Your task to perform on an android device: turn on wifi Image 0: 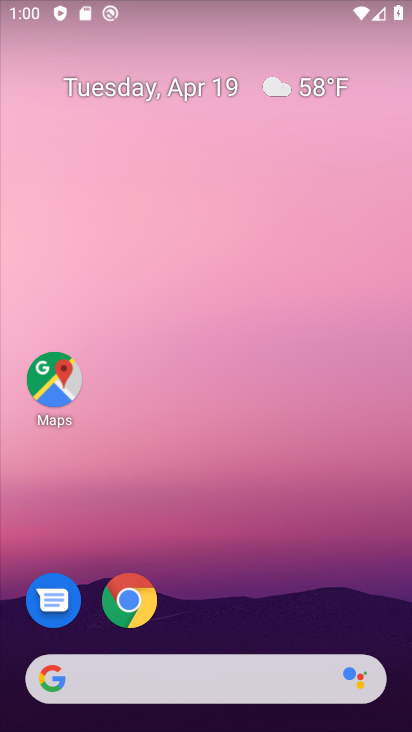
Step 0: drag from (186, 645) to (302, 69)
Your task to perform on an android device: turn on wifi Image 1: 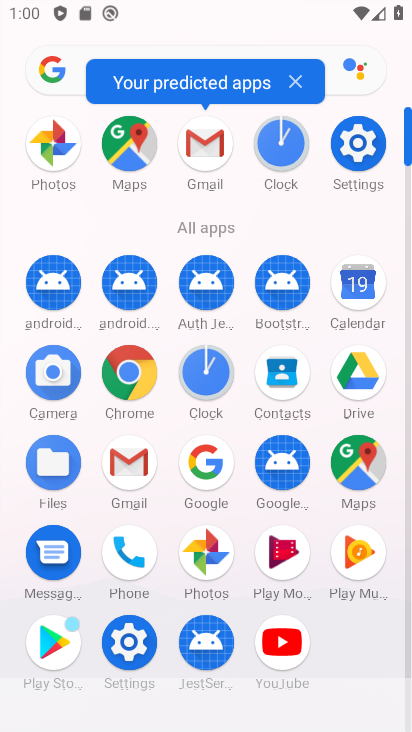
Step 1: click (114, 639)
Your task to perform on an android device: turn on wifi Image 2: 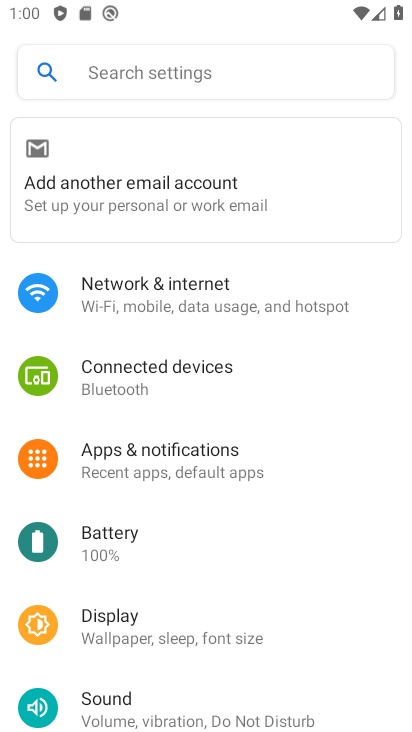
Step 2: click (263, 312)
Your task to perform on an android device: turn on wifi Image 3: 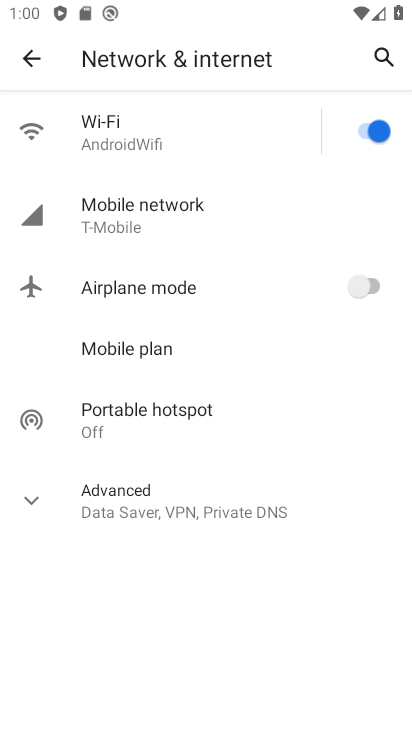
Step 3: task complete